Your task to perform on an android device: Search for Mexican restaurants on Maps Image 0: 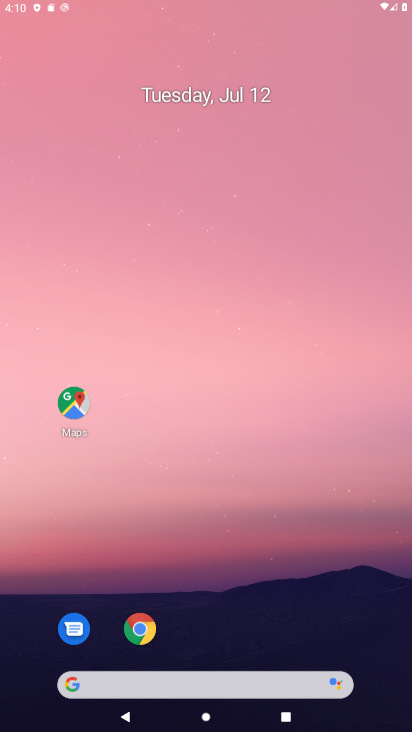
Step 0: press home button
Your task to perform on an android device: Search for Mexican restaurants on Maps Image 1: 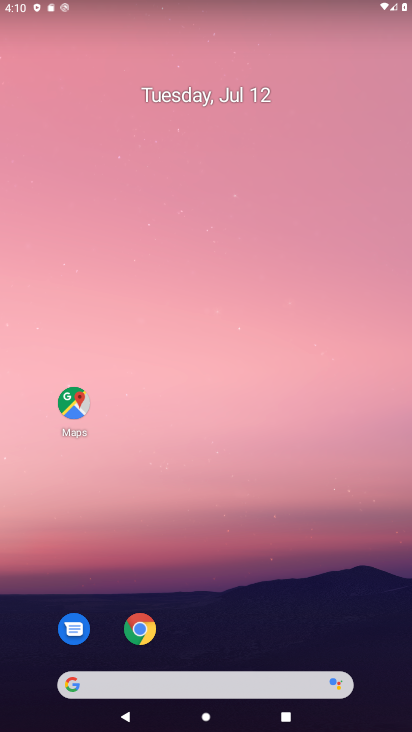
Step 1: drag from (208, 648) to (231, 400)
Your task to perform on an android device: Search for Mexican restaurants on Maps Image 2: 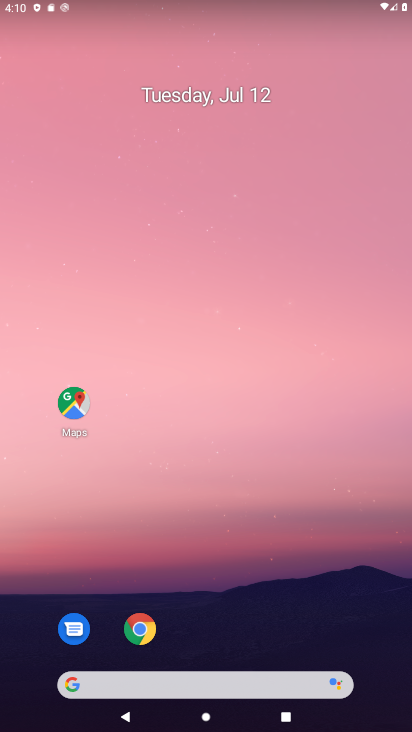
Step 2: drag from (279, 638) to (314, 297)
Your task to perform on an android device: Search for Mexican restaurants on Maps Image 3: 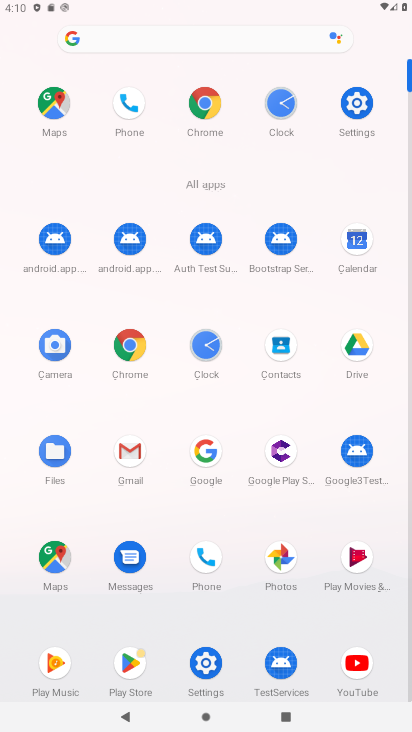
Step 3: click (48, 100)
Your task to perform on an android device: Search for Mexican restaurants on Maps Image 4: 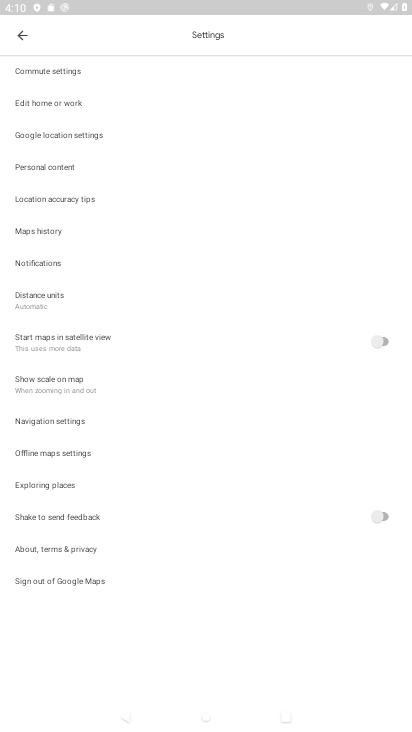
Step 4: press back button
Your task to perform on an android device: Search for Mexican restaurants on Maps Image 5: 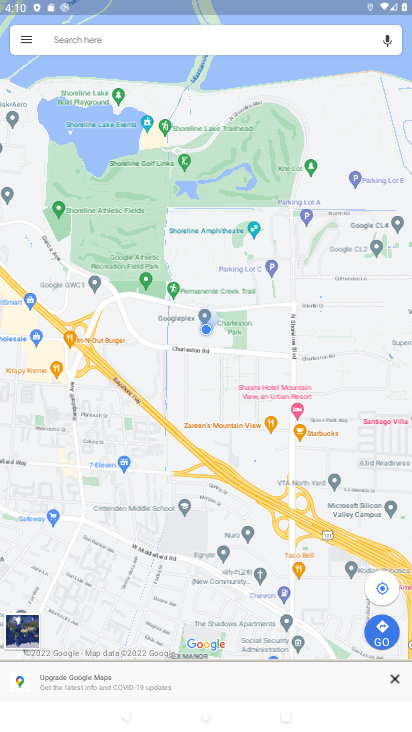
Step 5: click (102, 42)
Your task to perform on an android device: Search for Mexican restaurants on Maps Image 6: 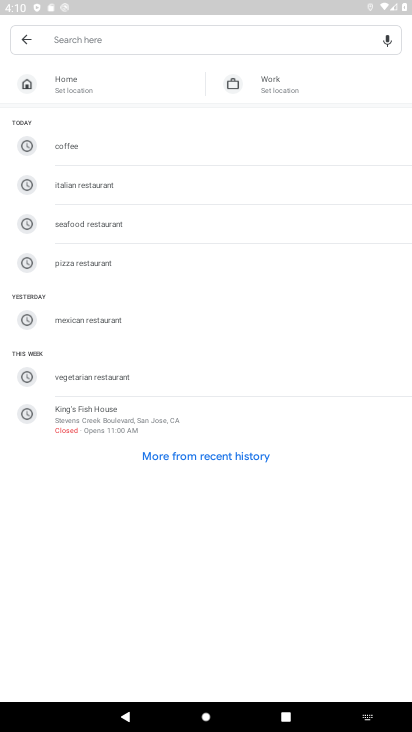
Step 6: click (81, 323)
Your task to perform on an android device: Search for Mexican restaurants on Maps Image 7: 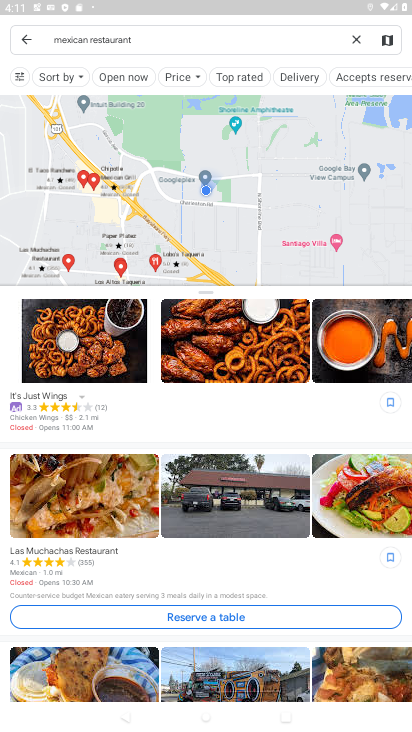
Step 7: task complete